Your task to perform on an android device: Turn off the flashlight Image 0: 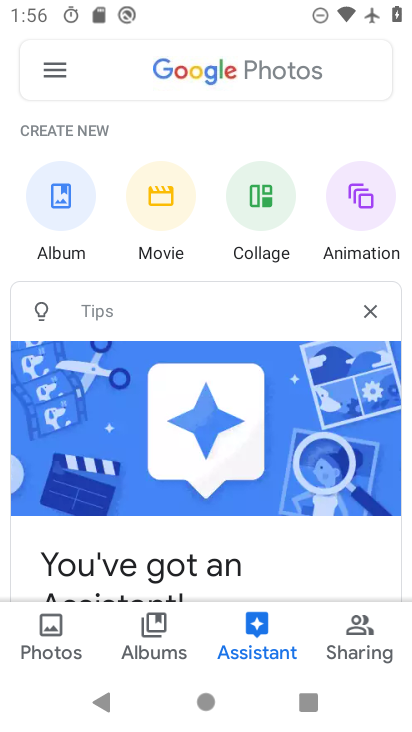
Step 0: press home button
Your task to perform on an android device: Turn off the flashlight Image 1: 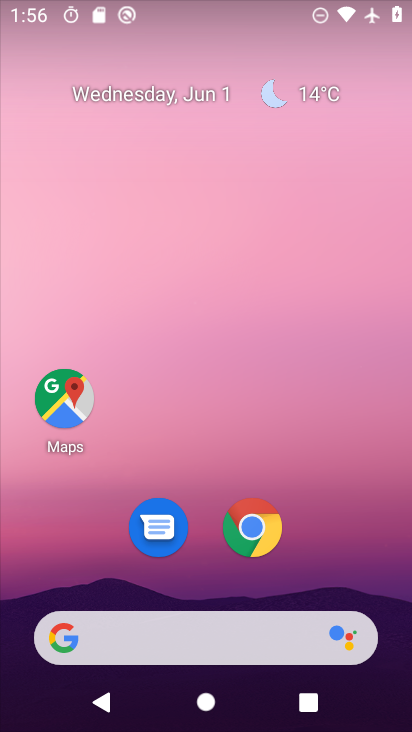
Step 1: task complete